Your task to perform on an android device: Open settings Image 0: 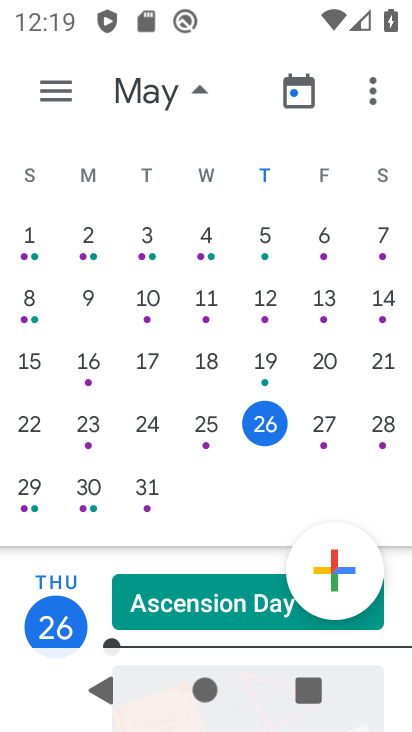
Step 0: press home button
Your task to perform on an android device: Open settings Image 1: 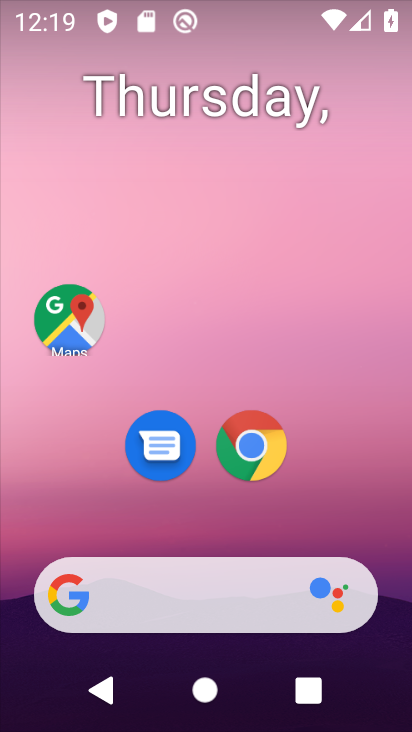
Step 1: drag from (365, 516) to (358, 122)
Your task to perform on an android device: Open settings Image 2: 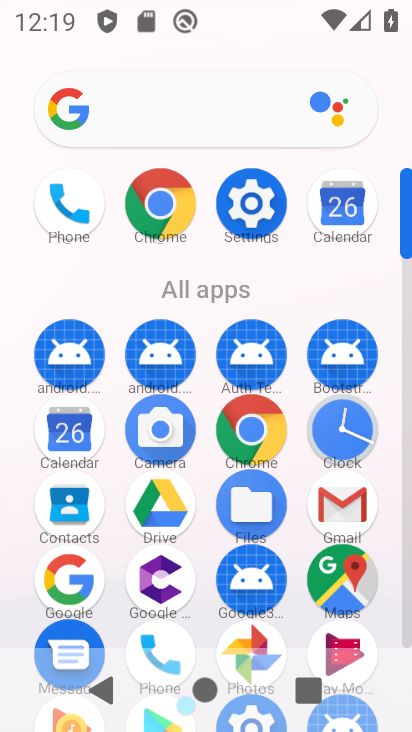
Step 2: click (254, 237)
Your task to perform on an android device: Open settings Image 3: 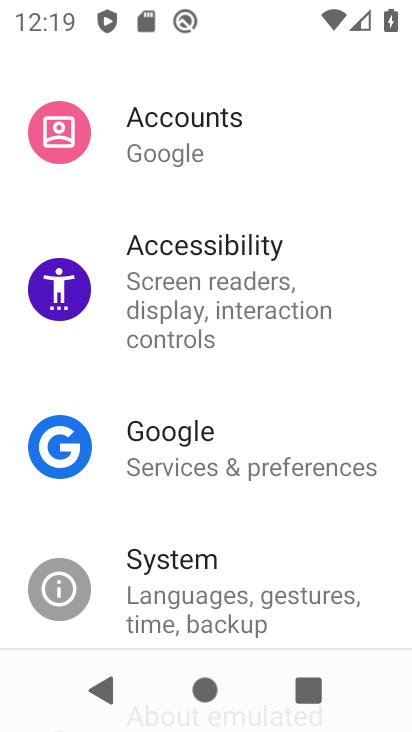
Step 3: task complete